Your task to perform on an android device: set the timer Image 0: 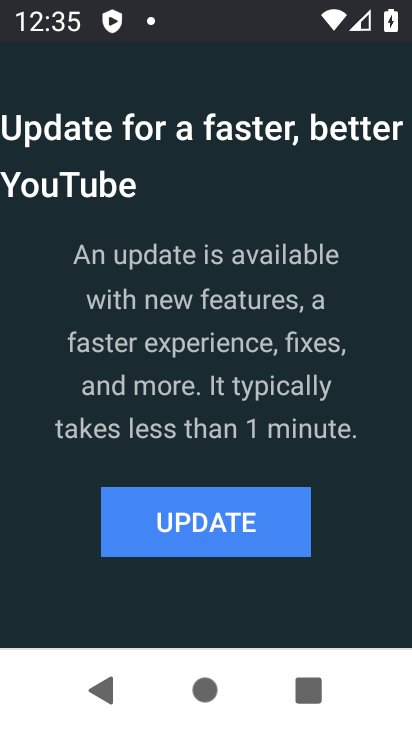
Step 0: press home button
Your task to perform on an android device: set the timer Image 1: 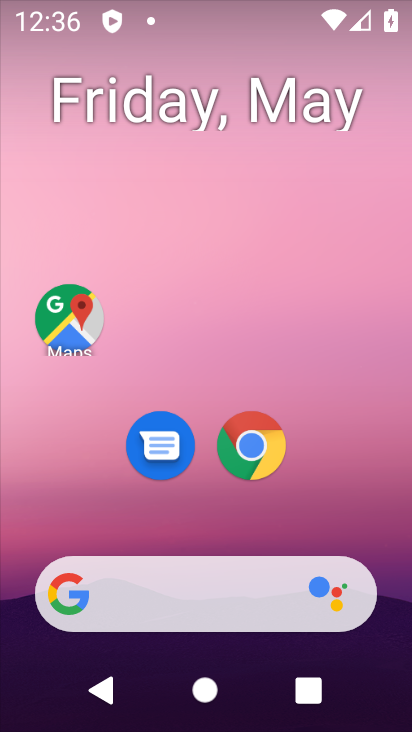
Step 1: drag from (400, 595) to (380, 117)
Your task to perform on an android device: set the timer Image 2: 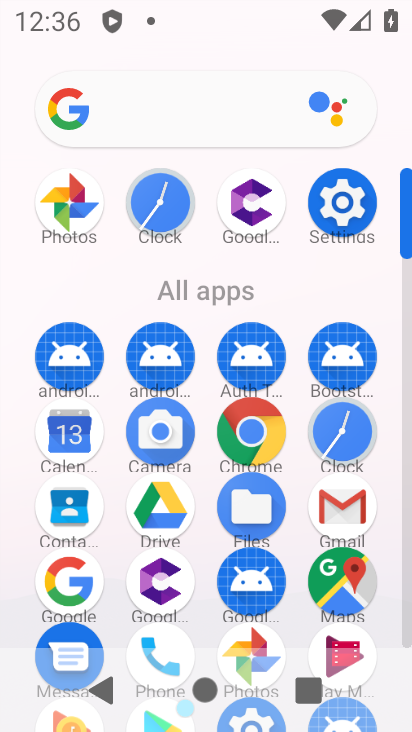
Step 2: click (338, 428)
Your task to perform on an android device: set the timer Image 3: 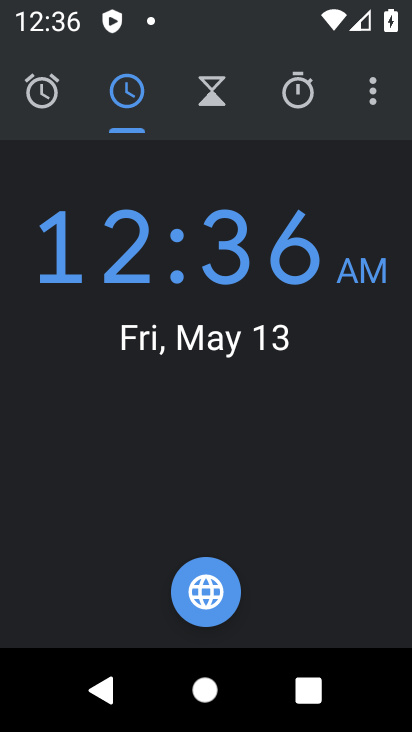
Step 3: click (207, 90)
Your task to perform on an android device: set the timer Image 4: 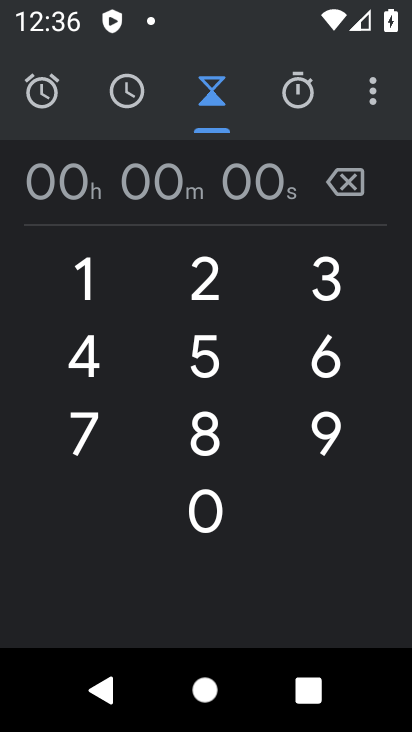
Step 4: click (89, 260)
Your task to perform on an android device: set the timer Image 5: 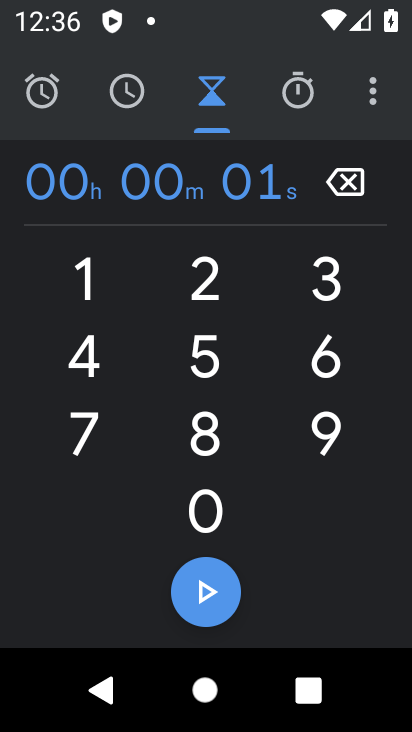
Step 5: click (319, 278)
Your task to perform on an android device: set the timer Image 6: 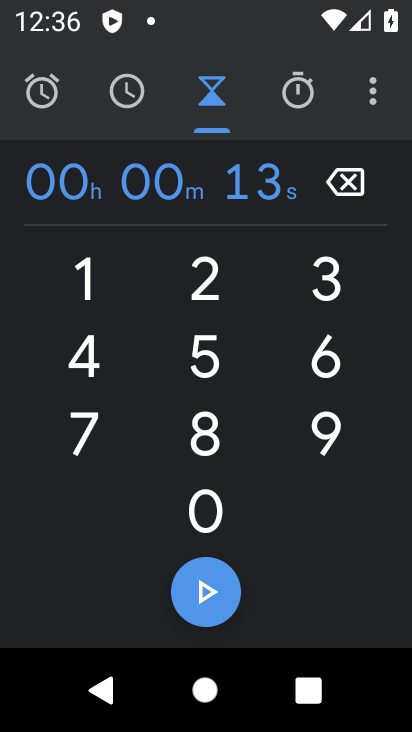
Step 6: click (200, 491)
Your task to perform on an android device: set the timer Image 7: 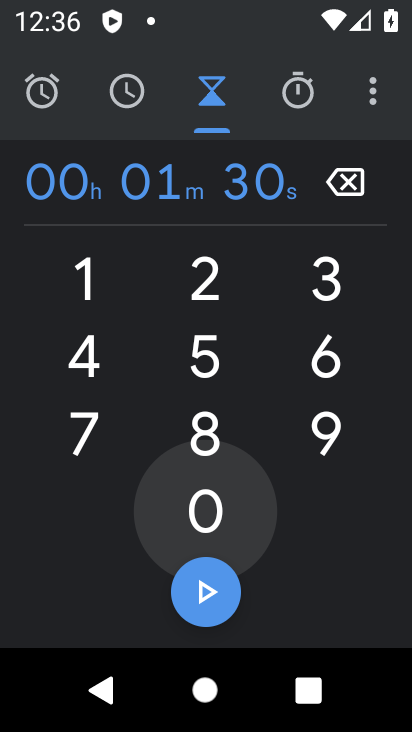
Step 7: click (200, 491)
Your task to perform on an android device: set the timer Image 8: 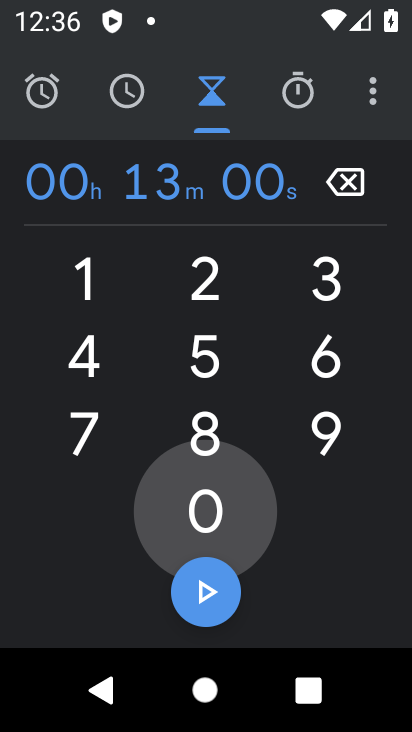
Step 8: click (200, 491)
Your task to perform on an android device: set the timer Image 9: 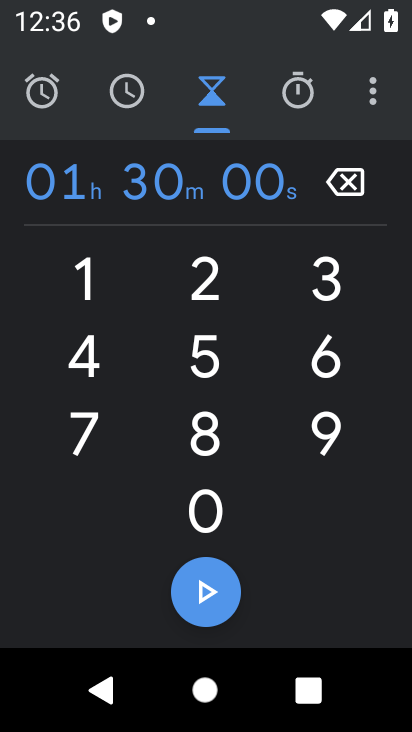
Step 9: task complete